Your task to perform on an android device: See recent photos Image 0: 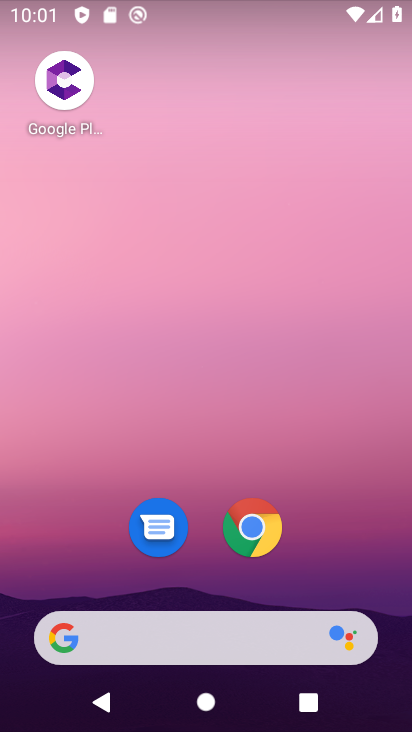
Step 0: drag from (210, 624) to (123, 8)
Your task to perform on an android device: See recent photos Image 1: 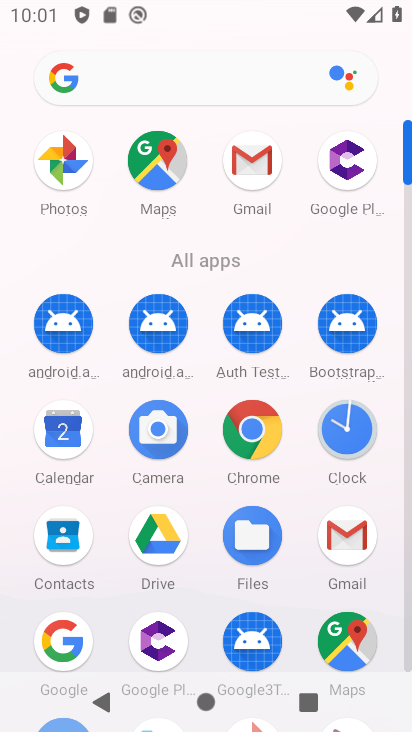
Step 1: click (72, 178)
Your task to perform on an android device: See recent photos Image 2: 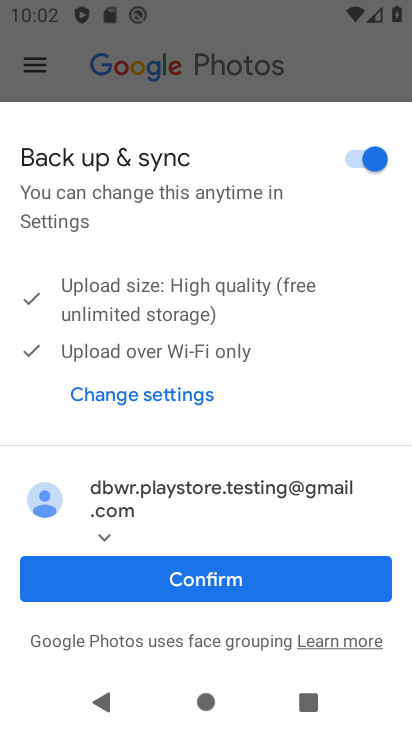
Step 2: click (259, 602)
Your task to perform on an android device: See recent photos Image 3: 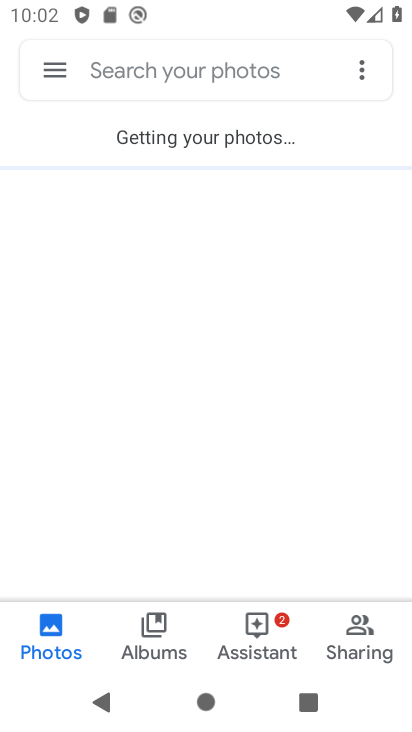
Step 3: task complete